Your task to perform on an android device: Search for sushi restaurants on Maps Image 0: 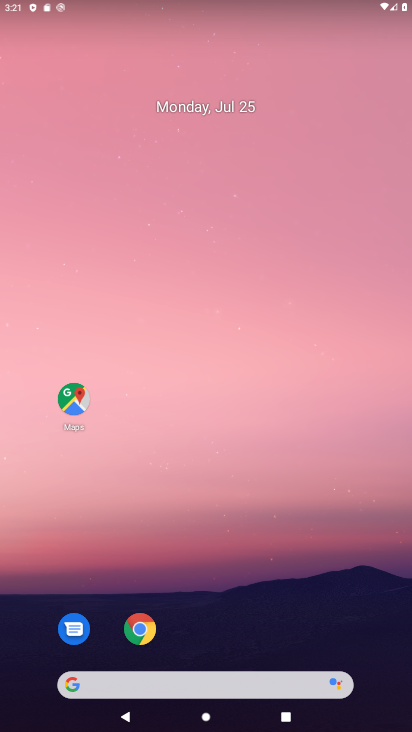
Step 0: drag from (227, 691) to (238, 103)
Your task to perform on an android device: Search for sushi restaurants on Maps Image 1: 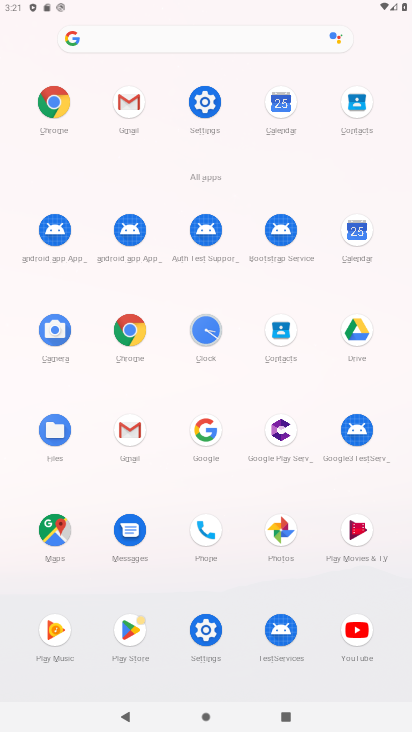
Step 1: click (55, 522)
Your task to perform on an android device: Search for sushi restaurants on Maps Image 2: 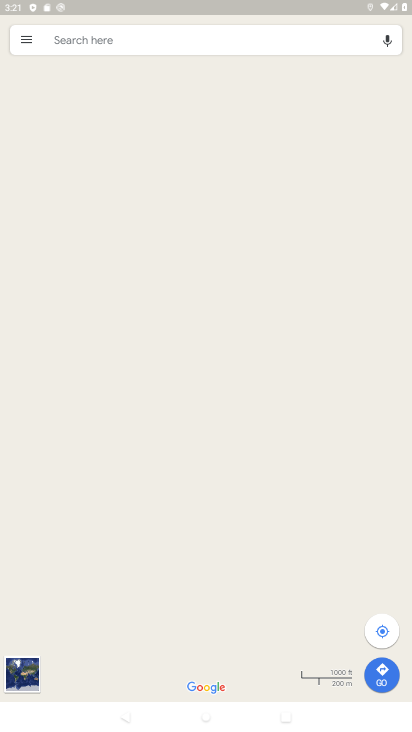
Step 2: click (241, 33)
Your task to perform on an android device: Search for sushi restaurants on Maps Image 3: 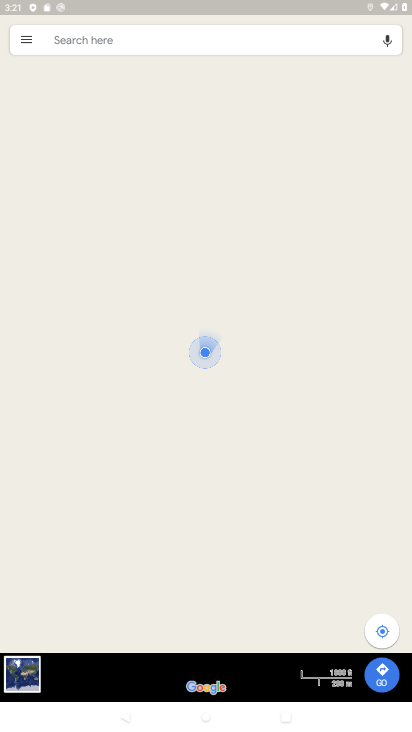
Step 3: click (241, 33)
Your task to perform on an android device: Search for sushi restaurants on Maps Image 4: 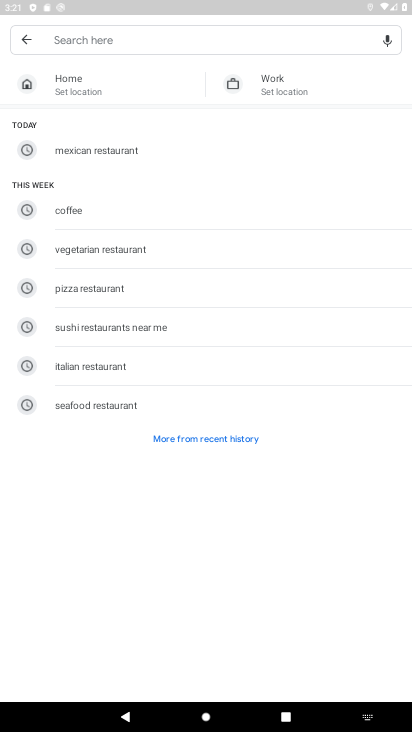
Step 4: click (88, 328)
Your task to perform on an android device: Search for sushi restaurants on Maps Image 5: 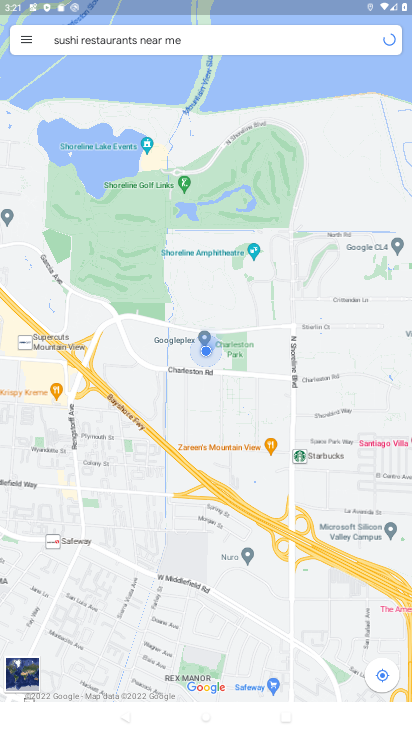
Step 5: task complete